Your task to perform on an android device: Open Google Chrome and open the bookmarks view Image 0: 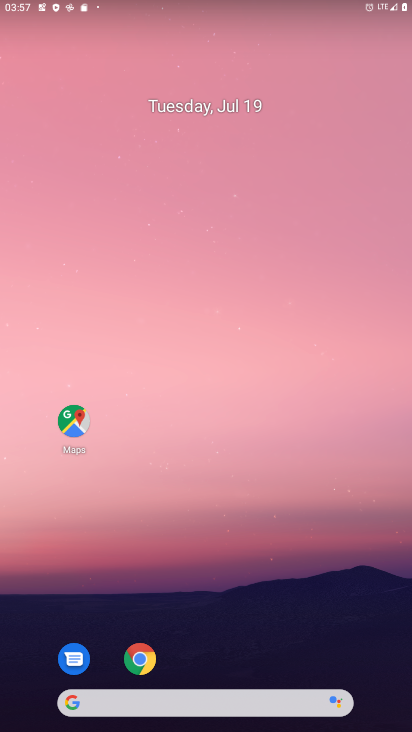
Step 0: press home button
Your task to perform on an android device: Open Google Chrome and open the bookmarks view Image 1: 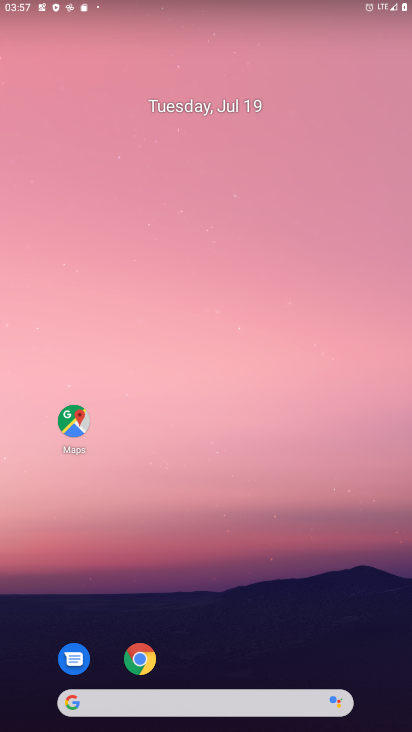
Step 1: click (113, 673)
Your task to perform on an android device: Open Google Chrome and open the bookmarks view Image 2: 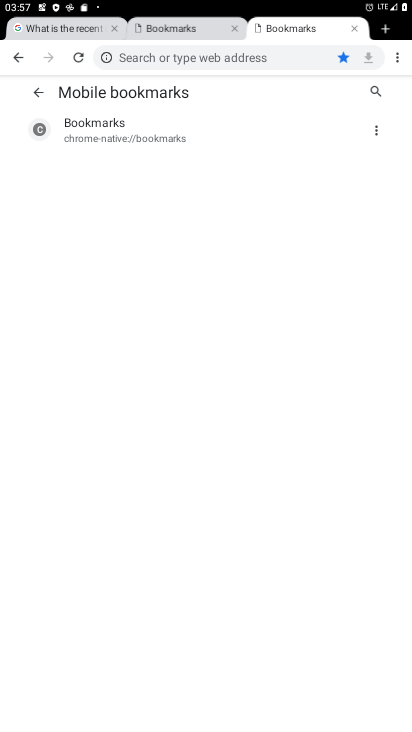
Step 2: task complete